Your task to perform on an android device: open app "Google Maps" Image 0: 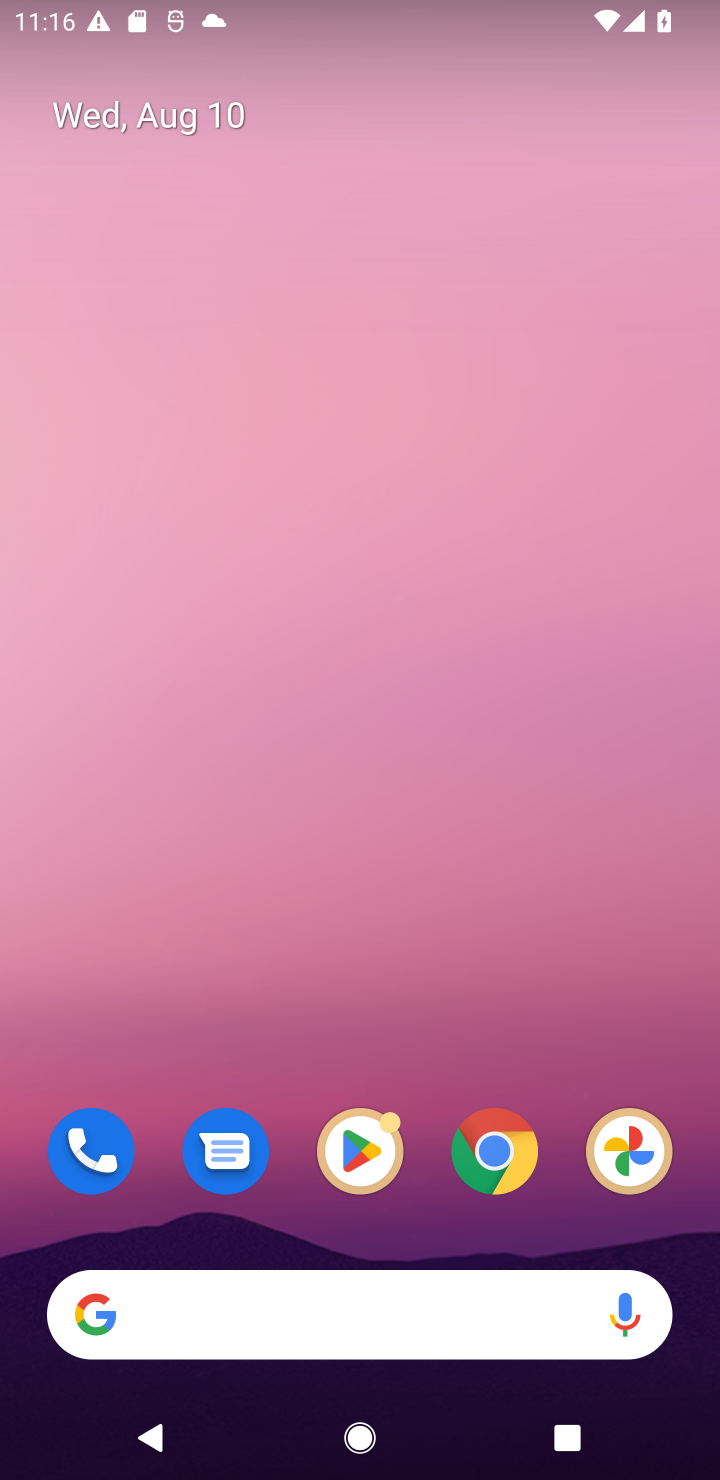
Step 0: press home button
Your task to perform on an android device: open app "Google Maps" Image 1: 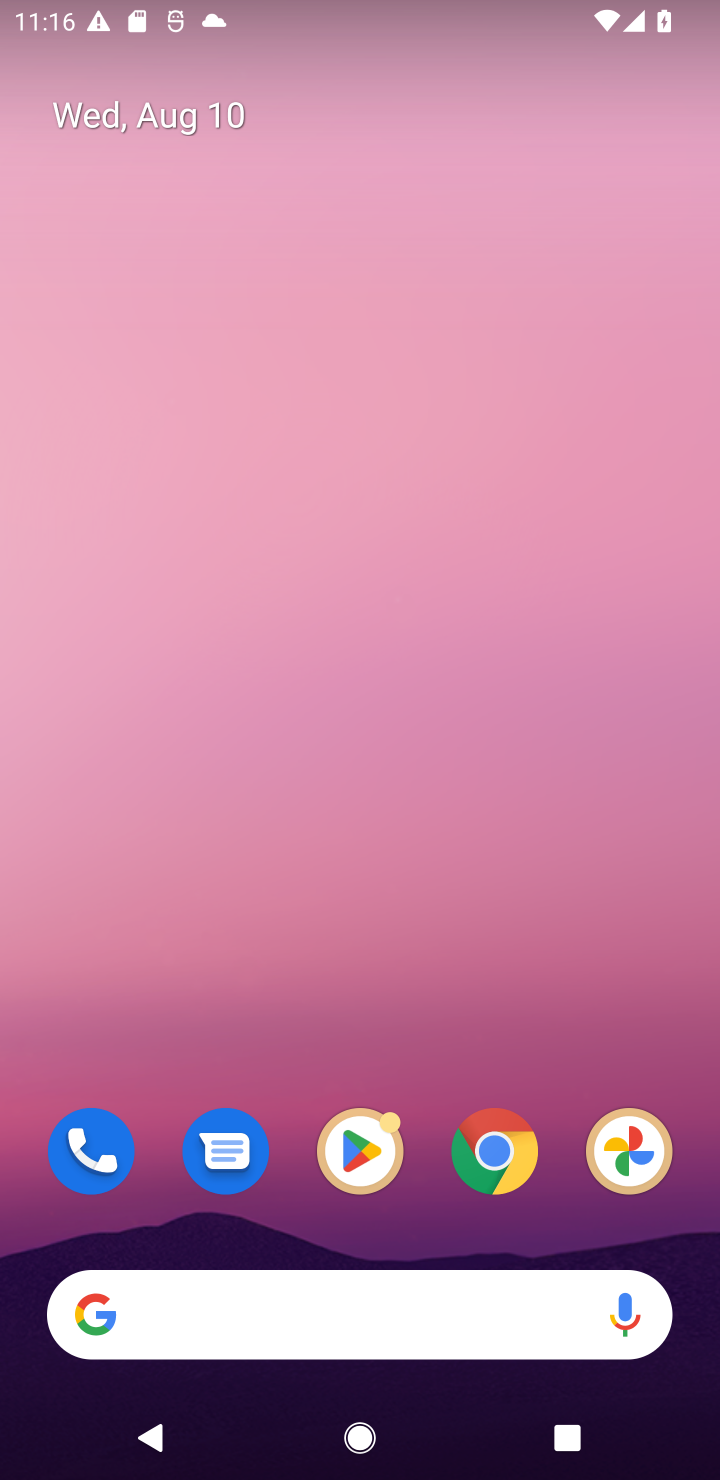
Step 1: drag from (409, 1095) to (435, 166)
Your task to perform on an android device: open app "Google Maps" Image 2: 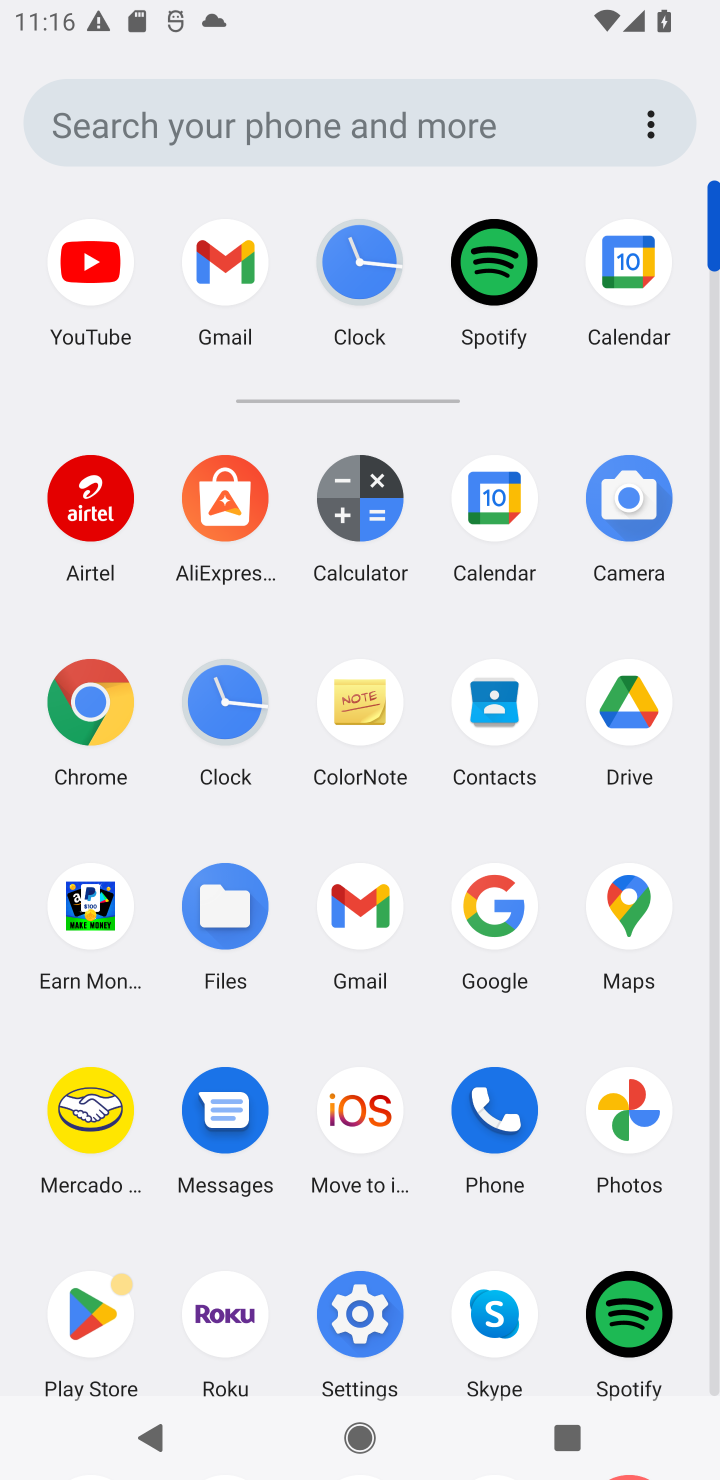
Step 2: click (64, 1295)
Your task to perform on an android device: open app "Google Maps" Image 3: 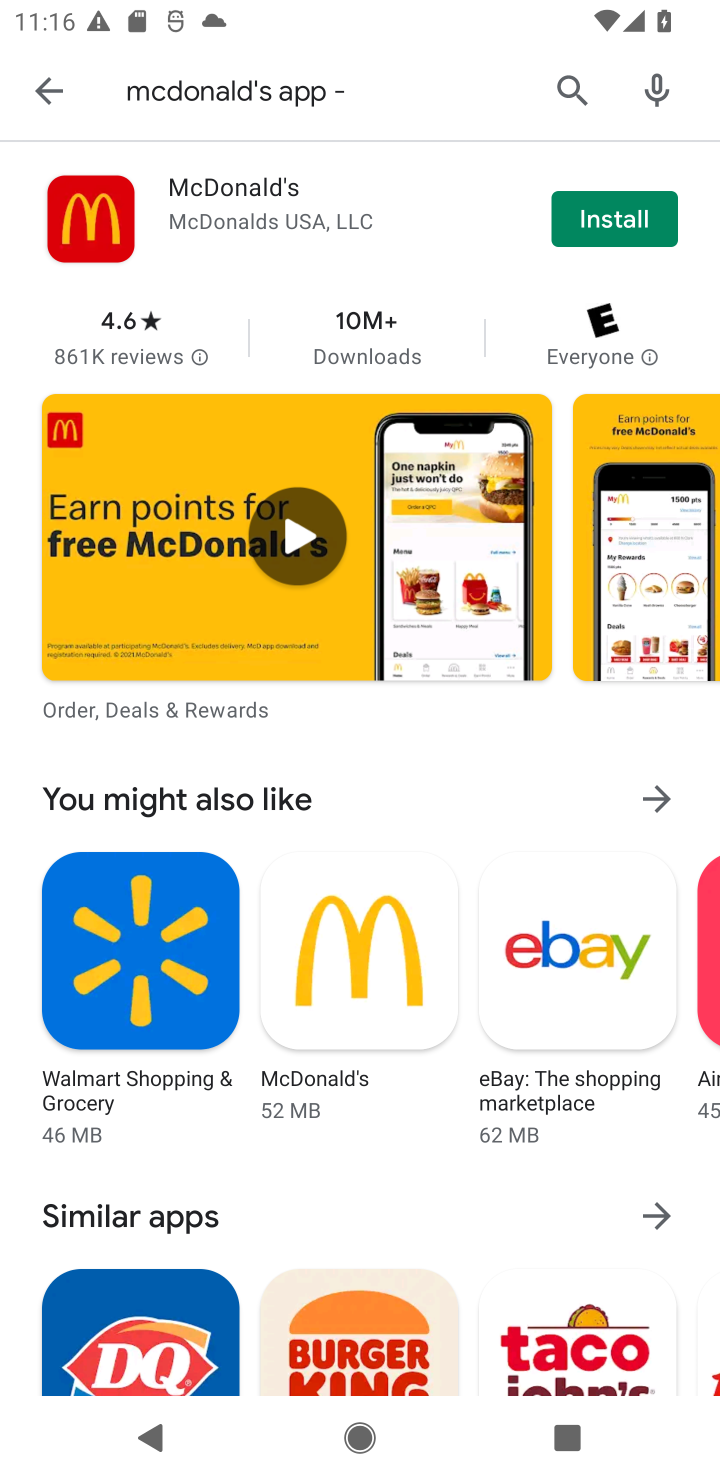
Step 3: click (581, 82)
Your task to perform on an android device: open app "Google Maps" Image 4: 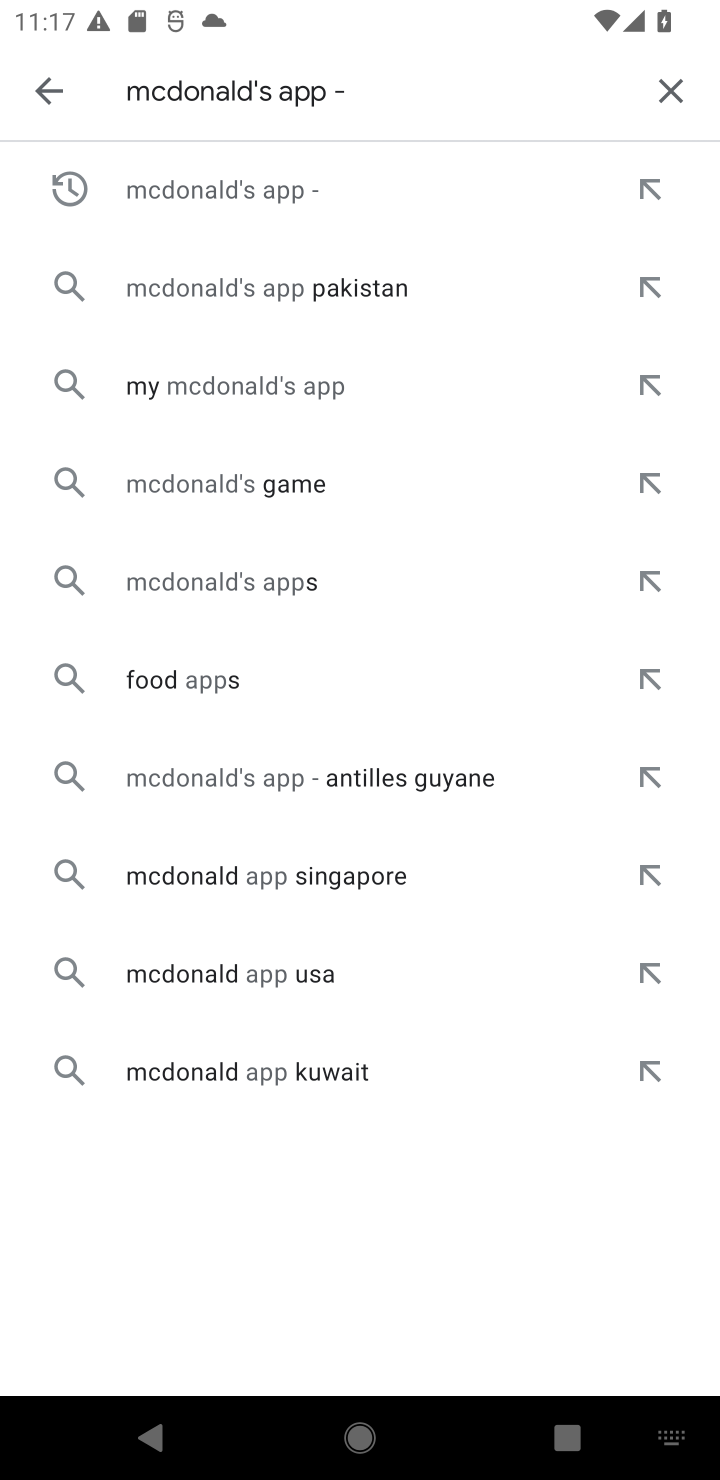
Step 4: click (680, 88)
Your task to perform on an android device: open app "Google Maps" Image 5: 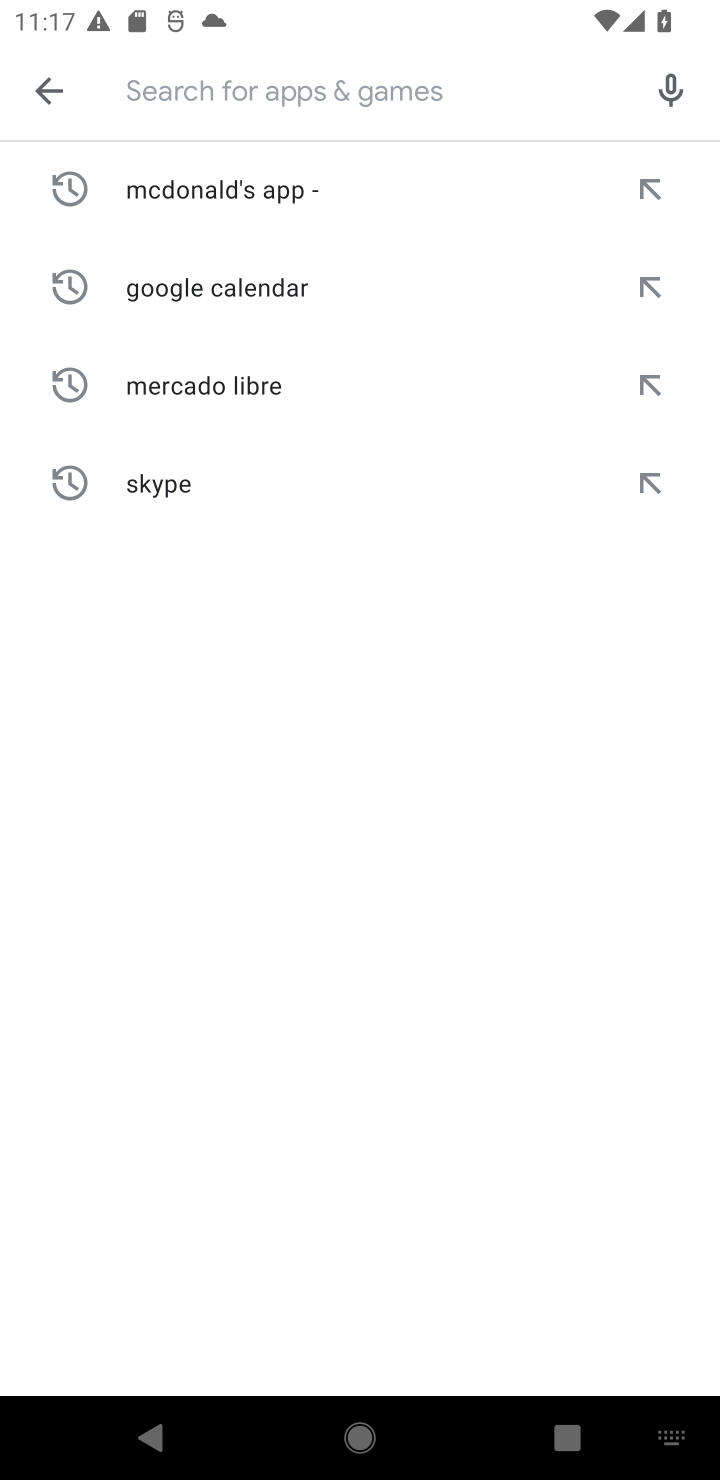
Step 5: type "Google Maps"
Your task to perform on an android device: open app "Google Maps" Image 6: 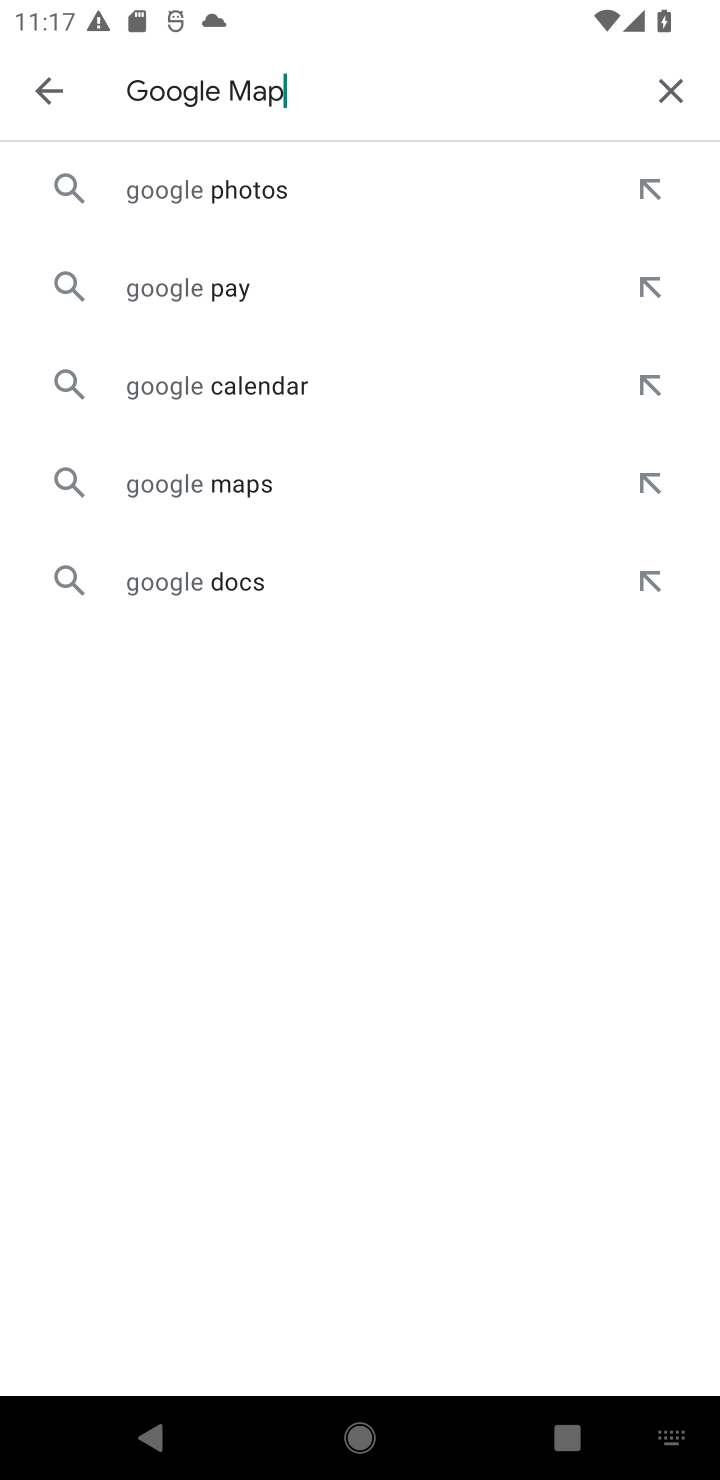
Step 6: type ""
Your task to perform on an android device: open app "Google Maps" Image 7: 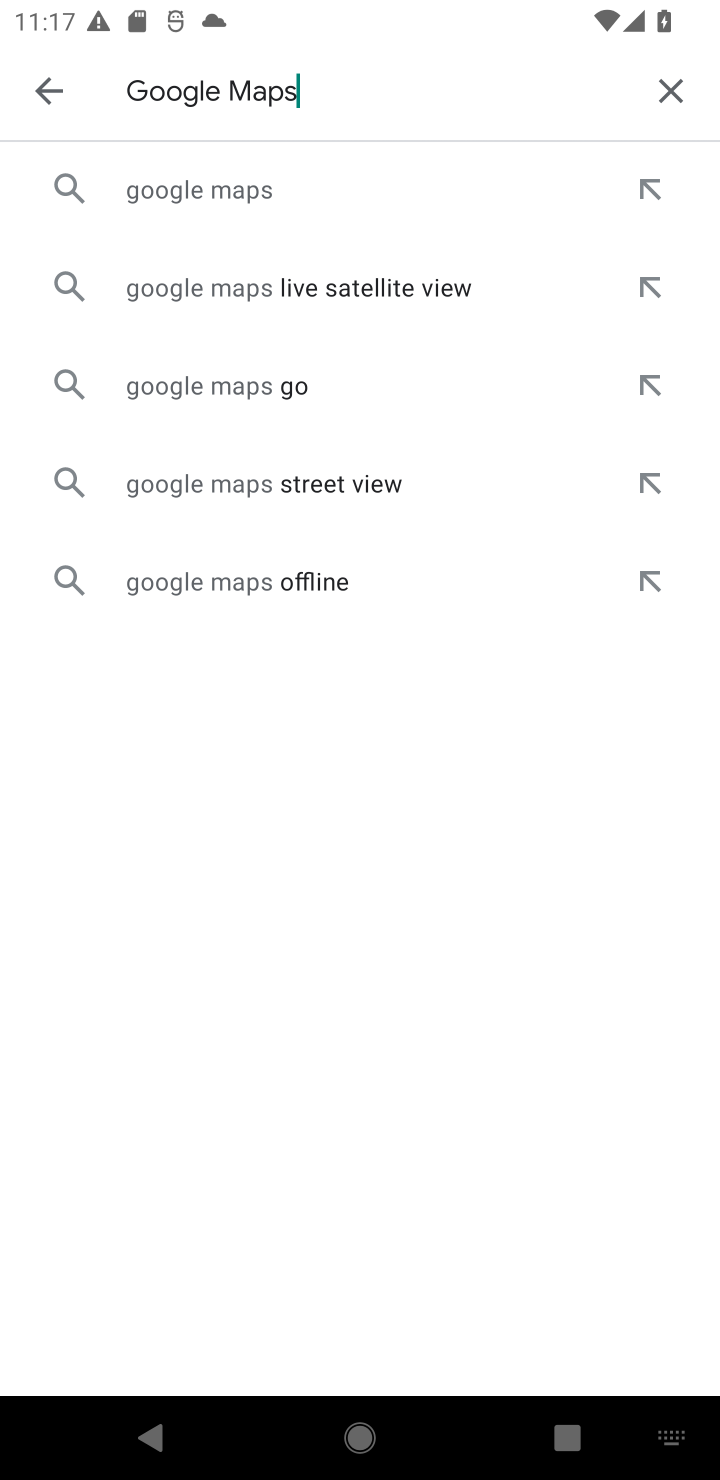
Step 7: click (297, 185)
Your task to perform on an android device: open app "Google Maps" Image 8: 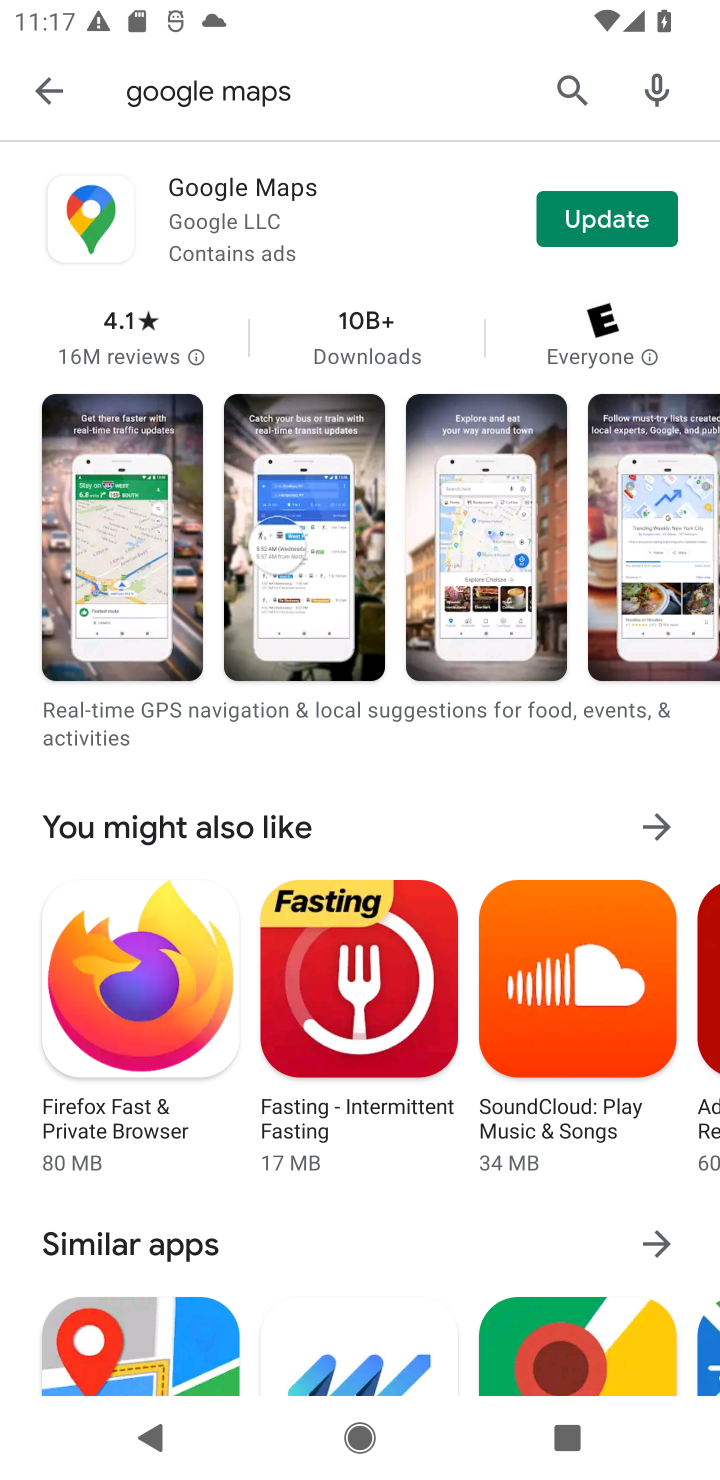
Step 8: click (606, 212)
Your task to perform on an android device: open app "Google Maps" Image 9: 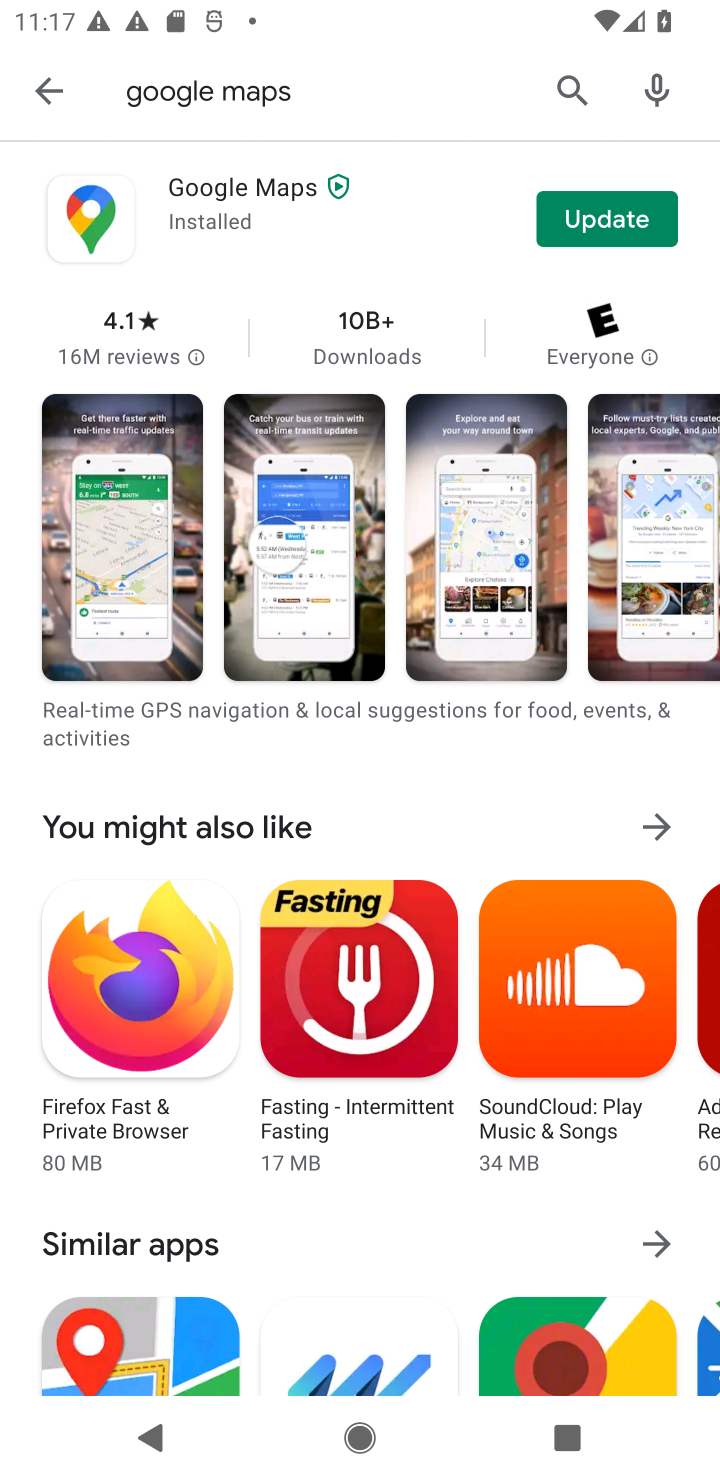
Step 9: click (611, 211)
Your task to perform on an android device: open app "Google Maps" Image 10: 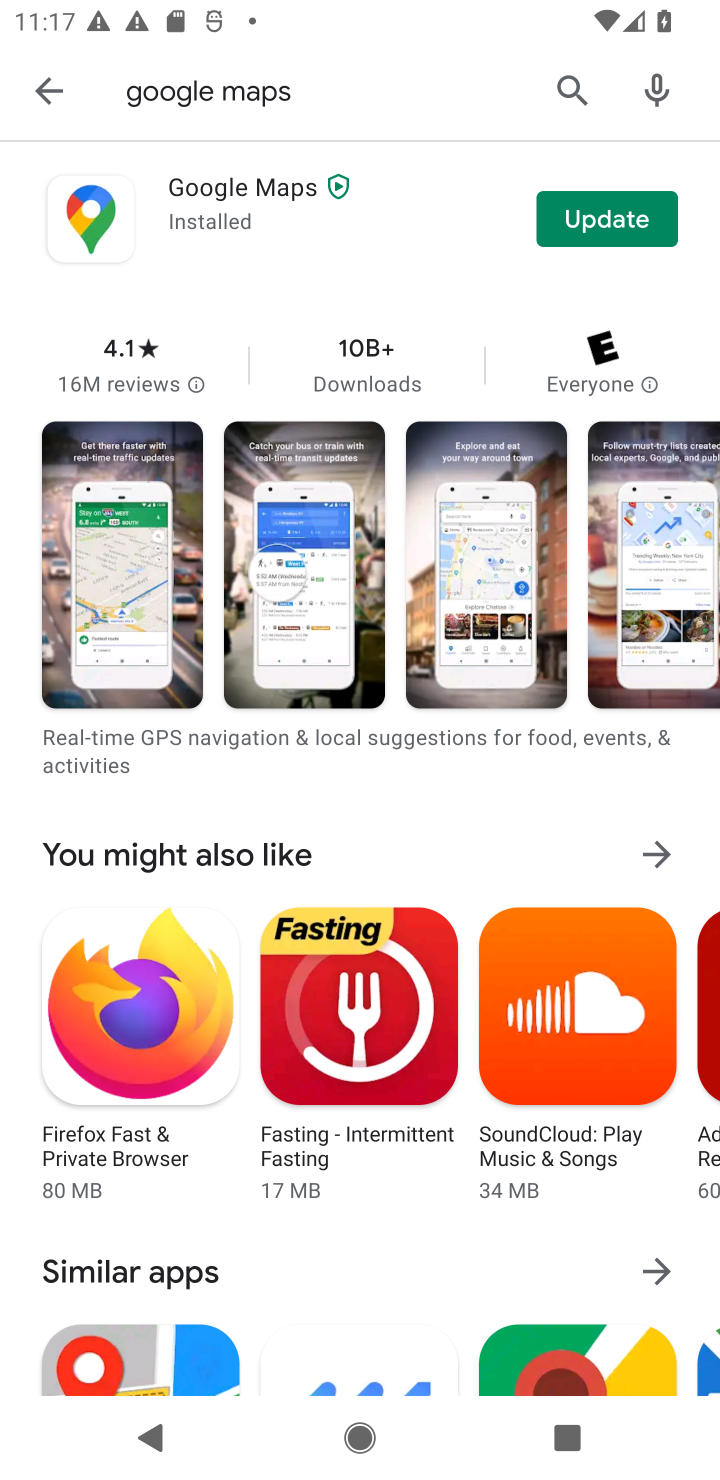
Step 10: click (605, 227)
Your task to perform on an android device: open app "Google Maps" Image 11: 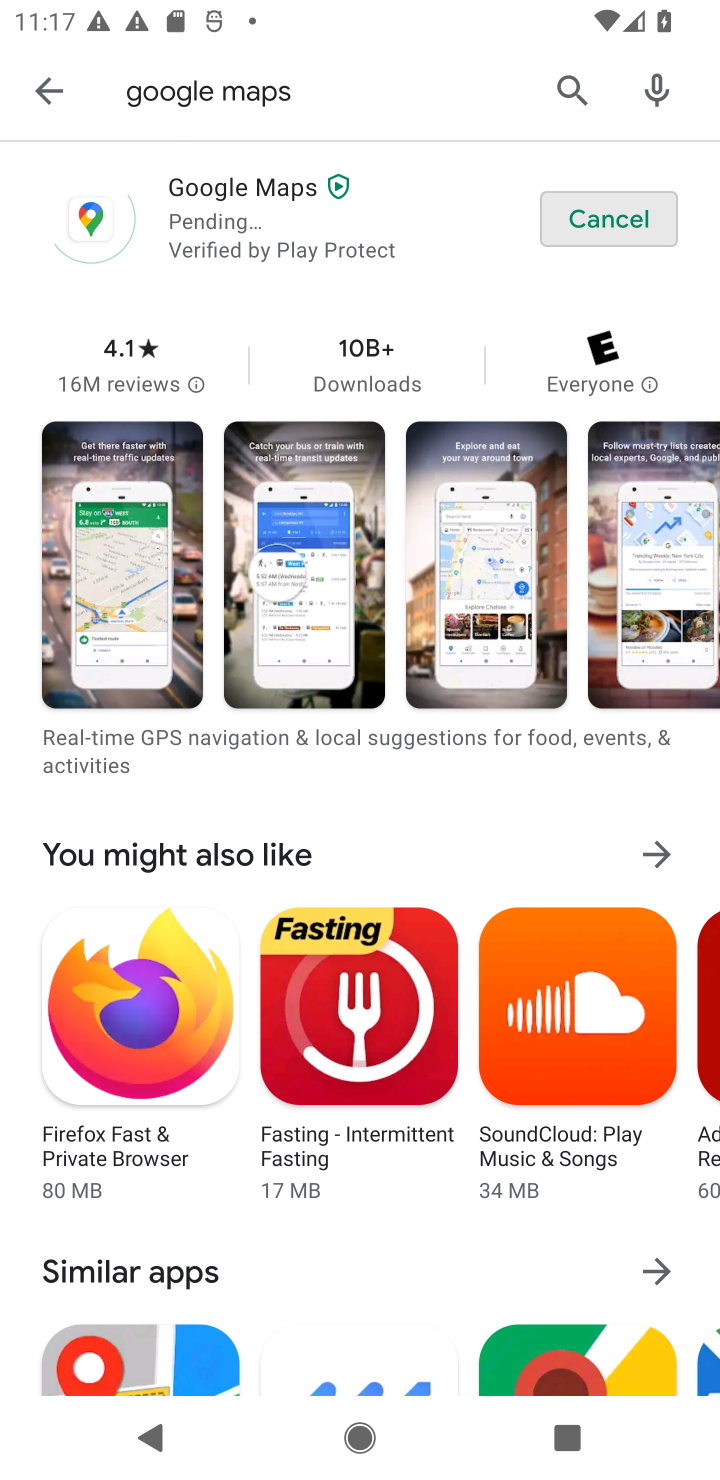
Step 11: task complete